Your task to perform on an android device: turn off notifications settings in the gmail app Image 0: 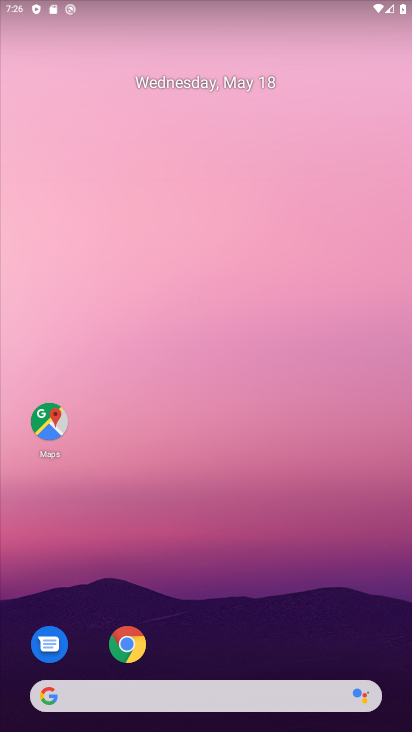
Step 0: drag from (251, 704) to (175, 131)
Your task to perform on an android device: turn off notifications settings in the gmail app Image 1: 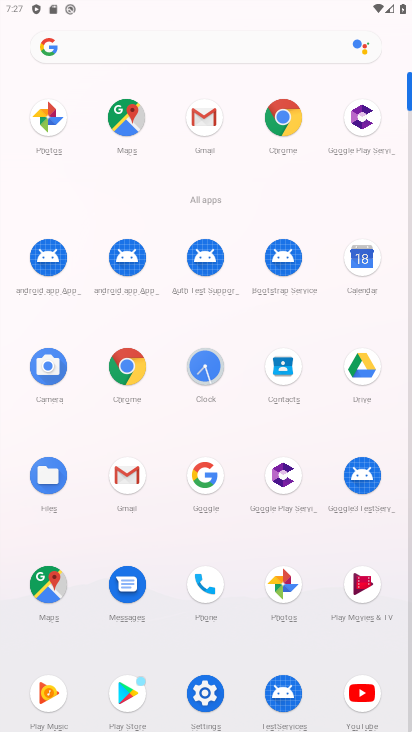
Step 1: click (190, 119)
Your task to perform on an android device: turn off notifications settings in the gmail app Image 2: 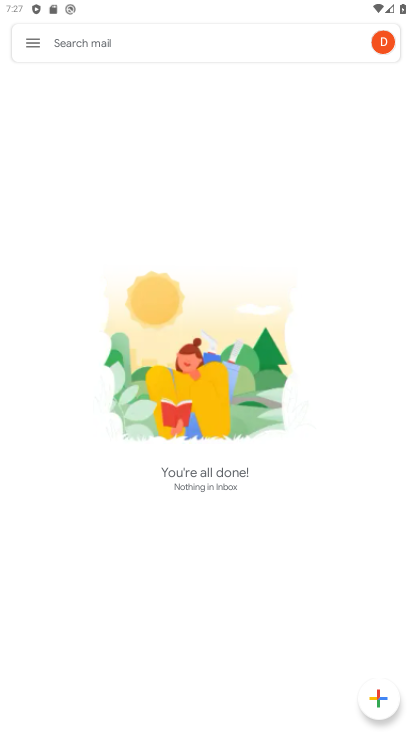
Step 2: click (30, 46)
Your task to perform on an android device: turn off notifications settings in the gmail app Image 3: 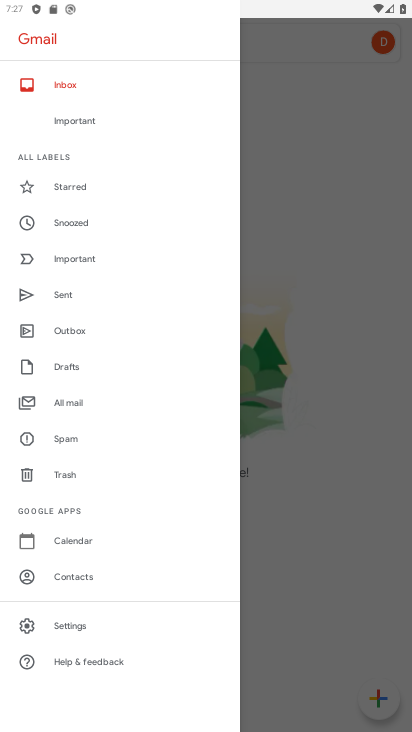
Step 3: click (71, 625)
Your task to perform on an android device: turn off notifications settings in the gmail app Image 4: 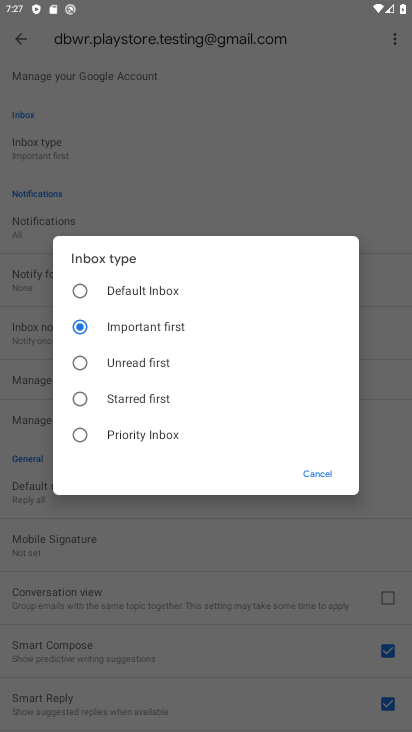
Step 4: click (312, 469)
Your task to perform on an android device: turn off notifications settings in the gmail app Image 5: 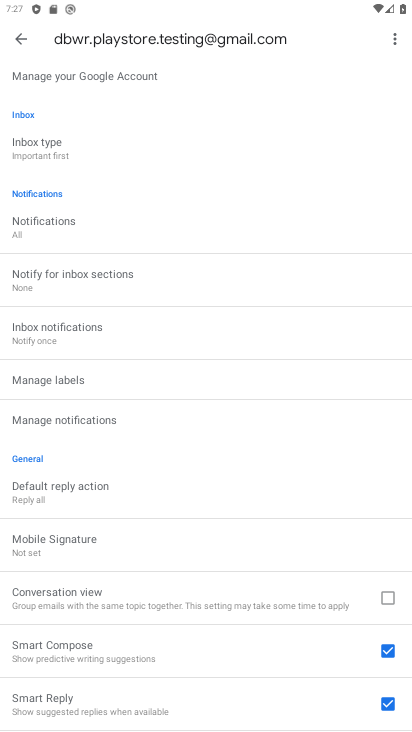
Step 5: click (77, 233)
Your task to perform on an android device: turn off notifications settings in the gmail app Image 6: 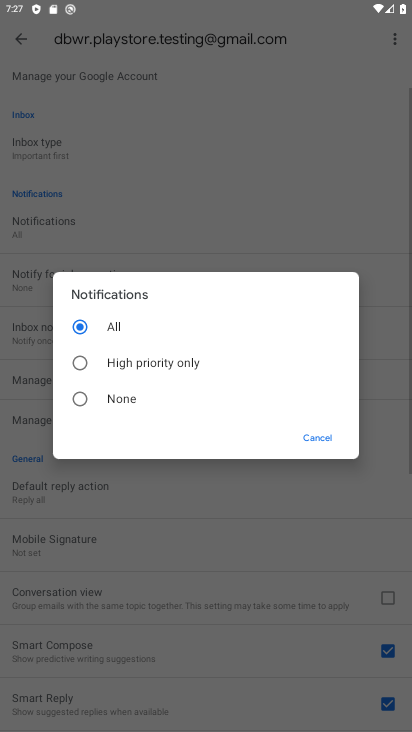
Step 6: click (104, 397)
Your task to perform on an android device: turn off notifications settings in the gmail app Image 7: 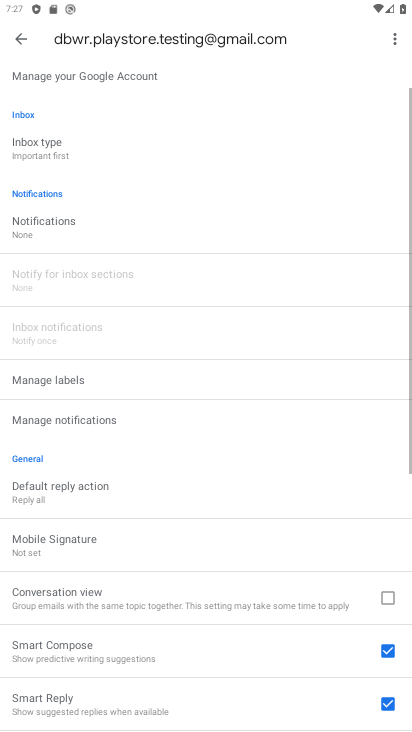
Step 7: task complete